Your task to perform on an android device: open app "Spotify" Image 0: 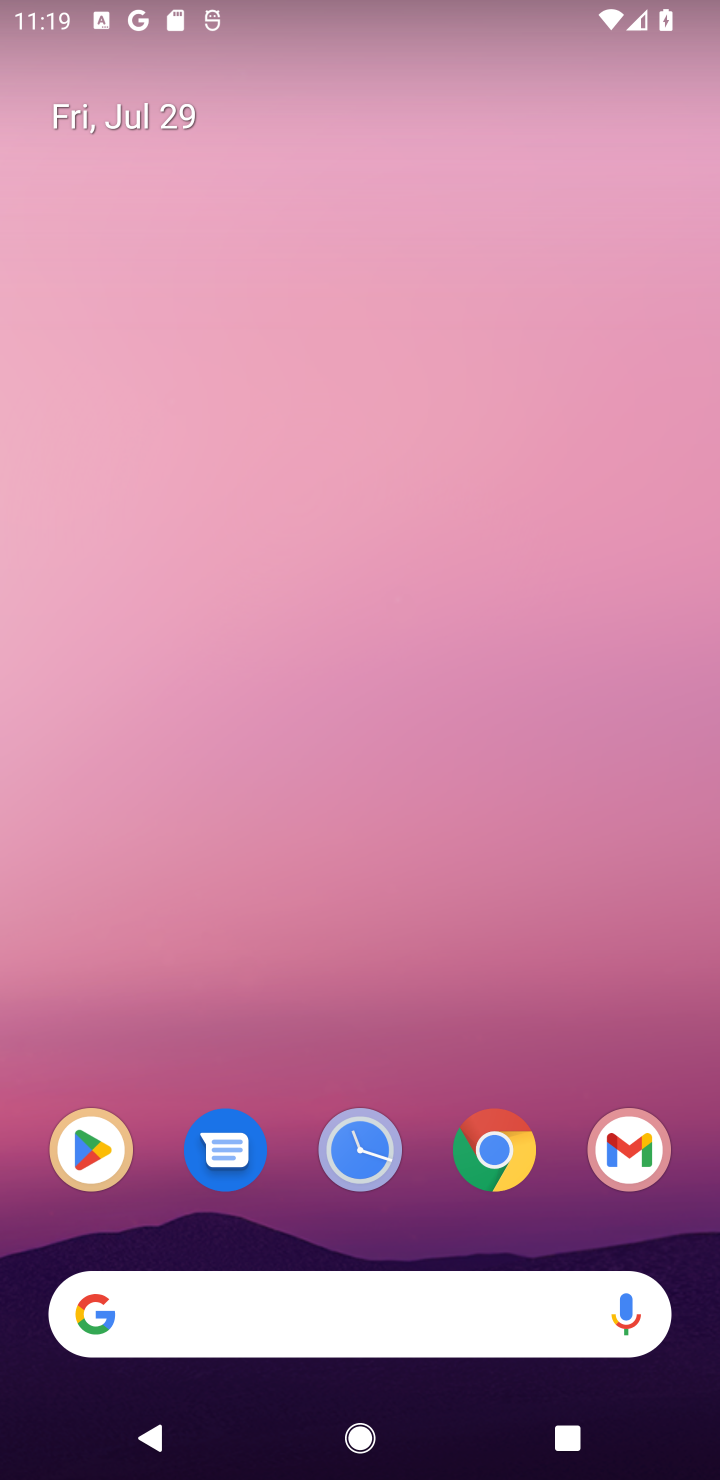
Step 0: click (71, 1149)
Your task to perform on an android device: open app "Spotify" Image 1: 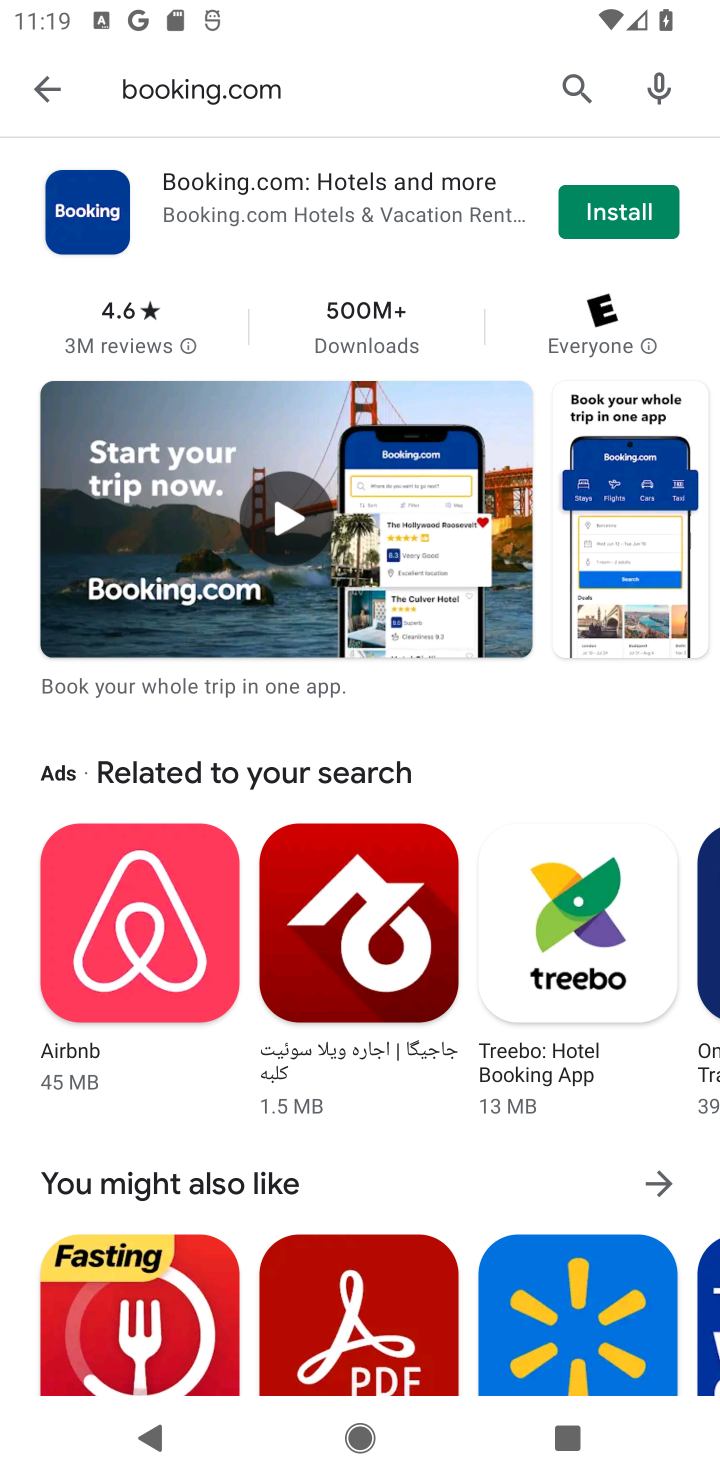
Step 1: click (569, 65)
Your task to perform on an android device: open app "Spotify" Image 2: 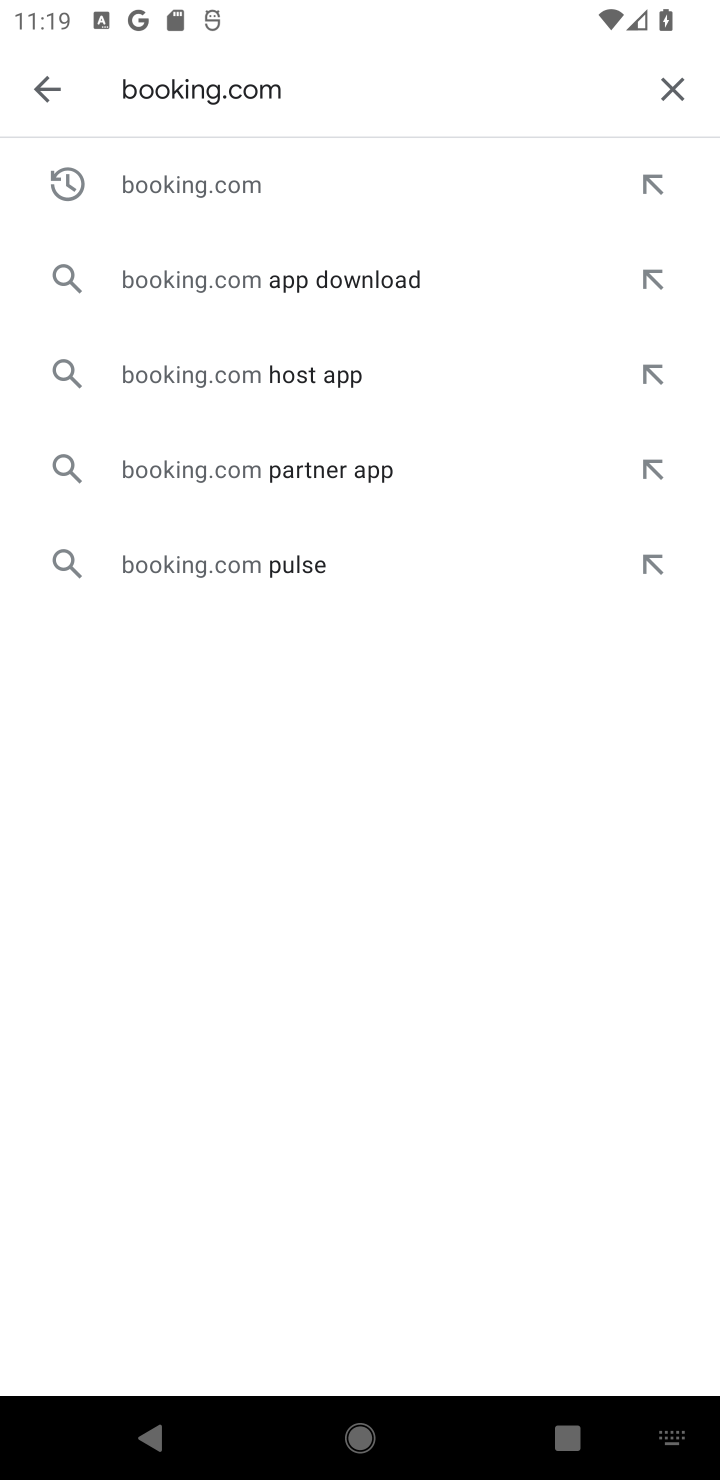
Step 2: click (674, 90)
Your task to perform on an android device: open app "Spotify" Image 3: 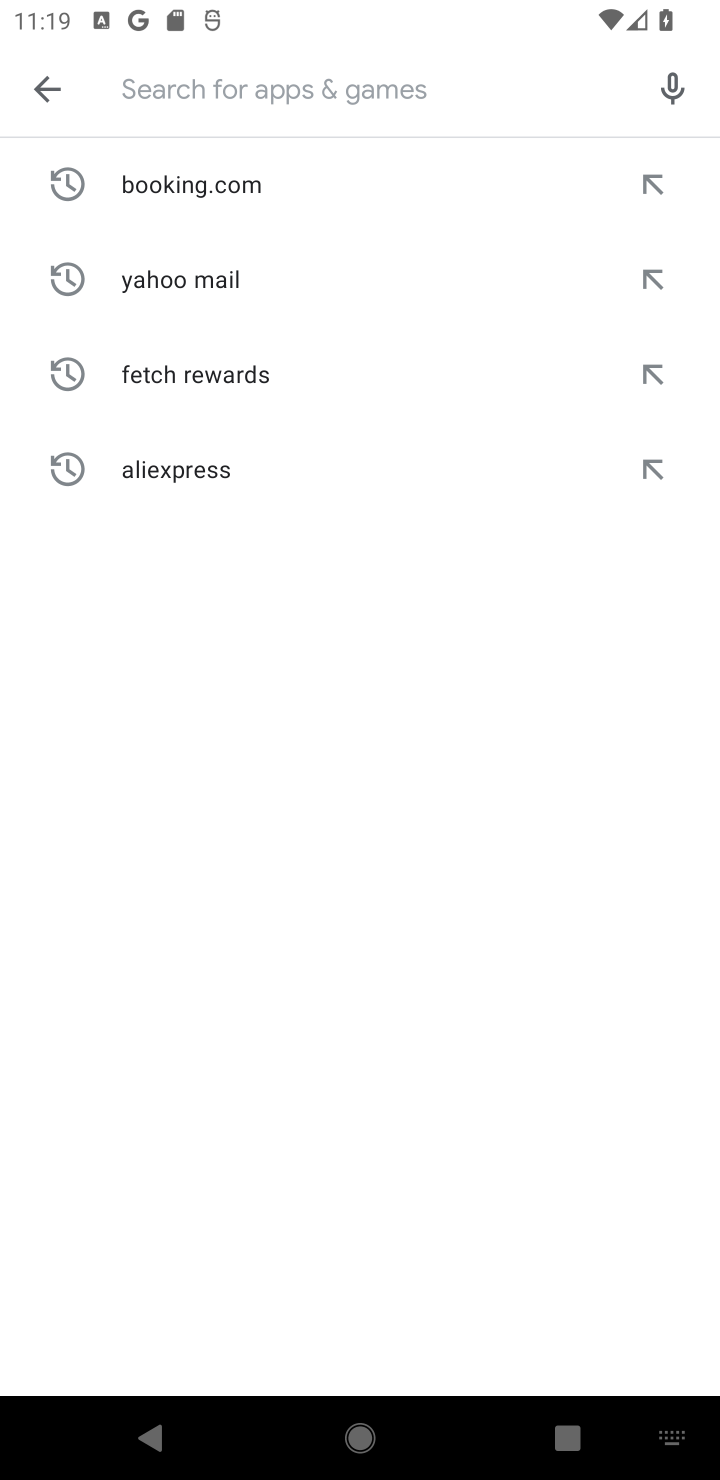
Step 3: click (219, 84)
Your task to perform on an android device: open app "Spotify" Image 4: 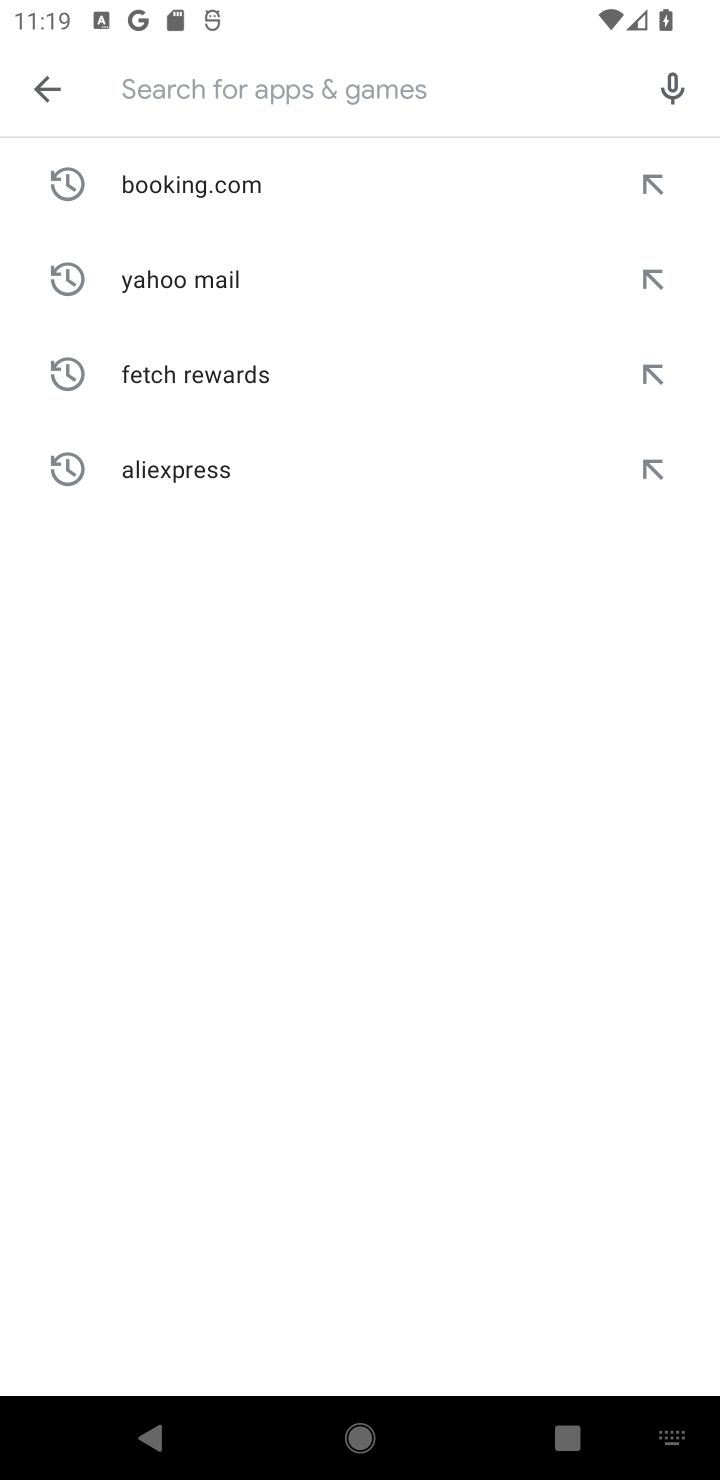
Step 4: type "spotify"
Your task to perform on an android device: open app "Spotify" Image 5: 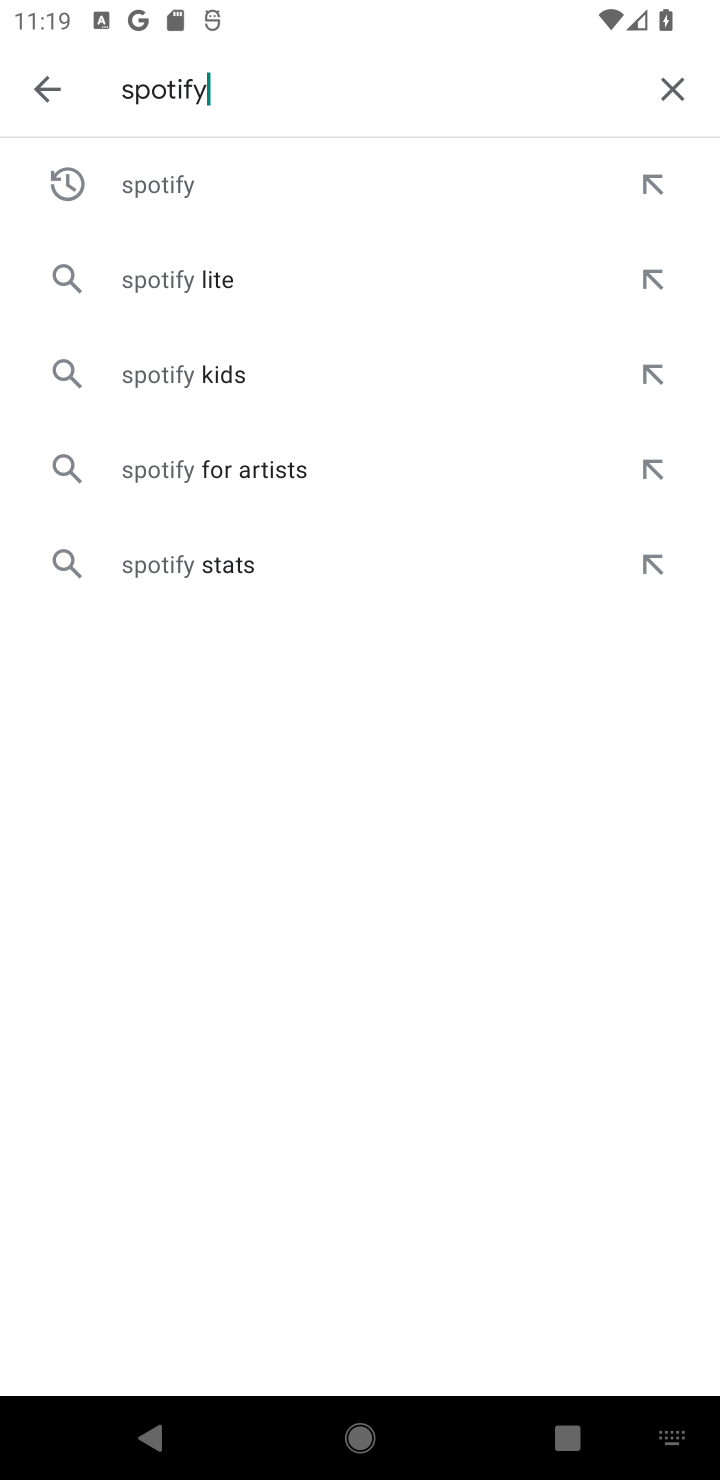
Step 5: click (176, 181)
Your task to perform on an android device: open app "Spotify" Image 6: 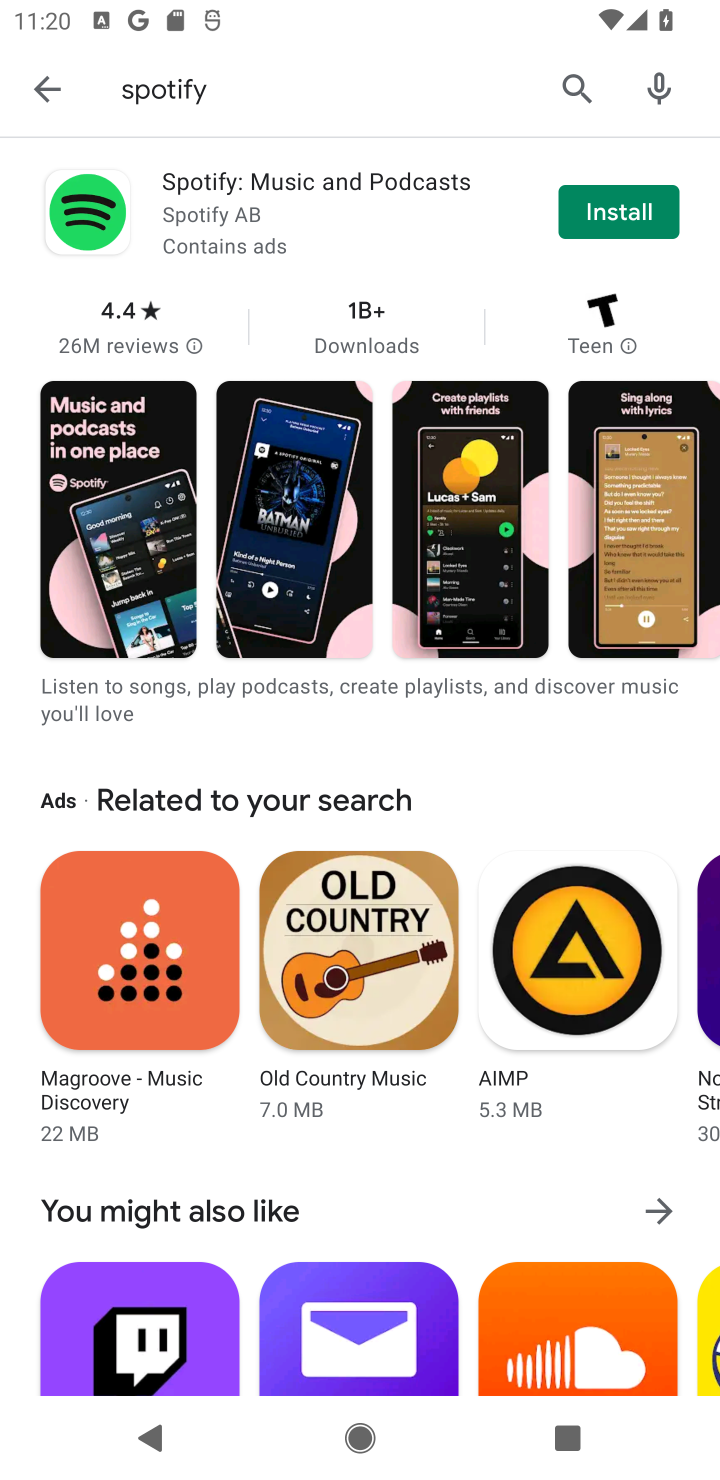
Step 6: task complete